Your task to perform on an android device: Is it going to rain today? Image 0: 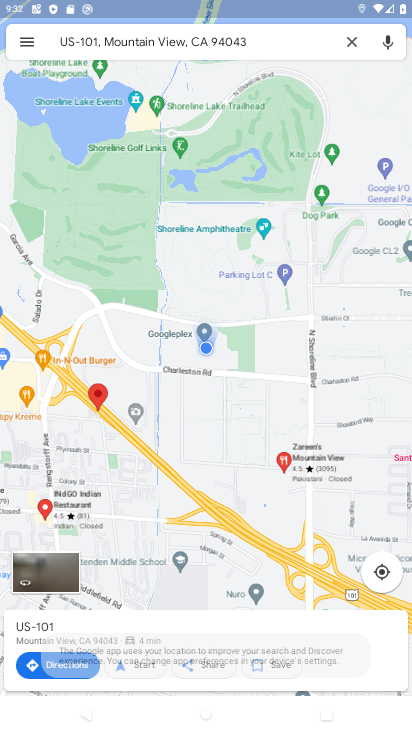
Step 0: press home button
Your task to perform on an android device: Is it going to rain today? Image 1: 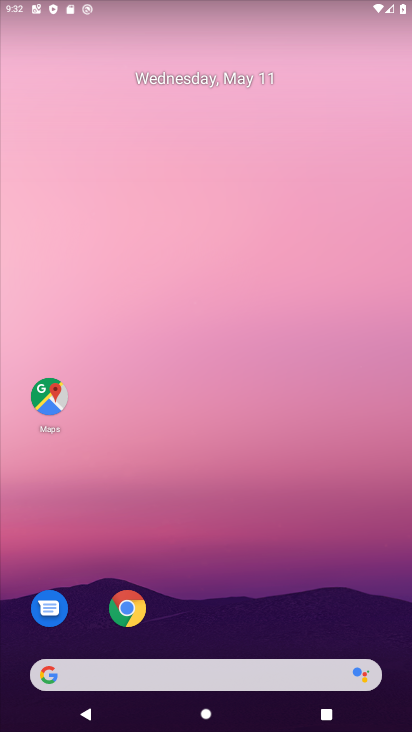
Step 1: click (125, 626)
Your task to perform on an android device: Is it going to rain today? Image 2: 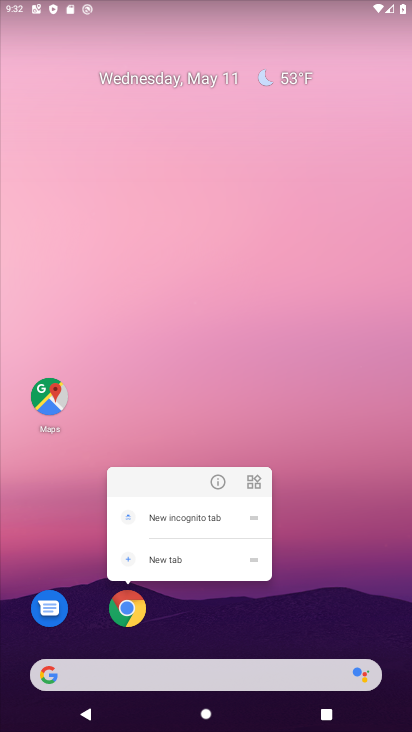
Step 2: click (132, 616)
Your task to perform on an android device: Is it going to rain today? Image 3: 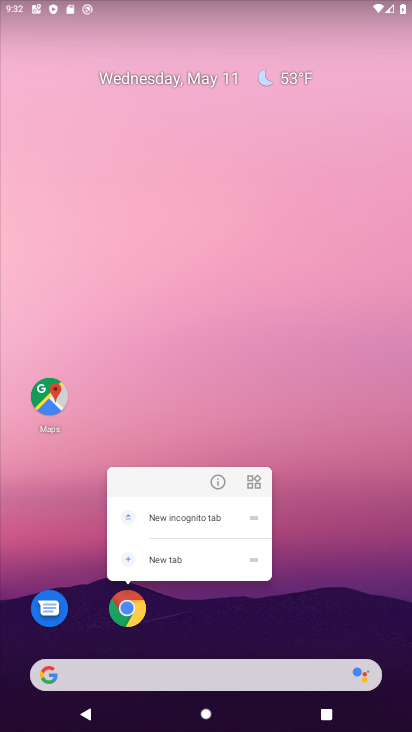
Step 3: click (132, 616)
Your task to perform on an android device: Is it going to rain today? Image 4: 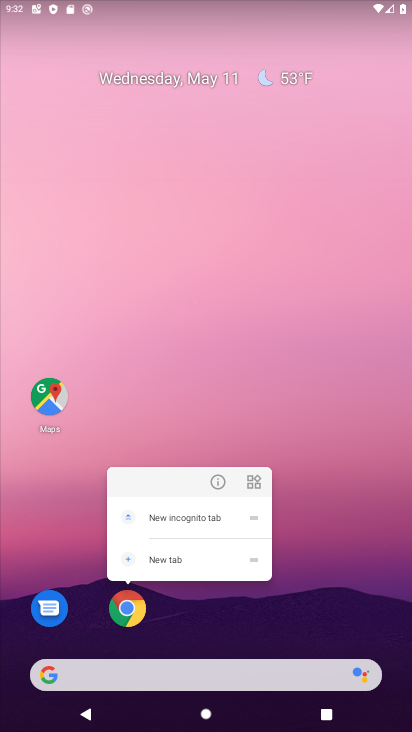
Step 4: click (132, 616)
Your task to perform on an android device: Is it going to rain today? Image 5: 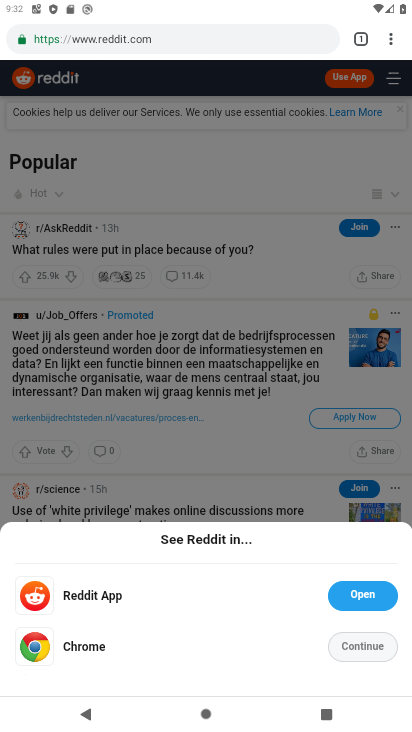
Step 5: click (222, 34)
Your task to perform on an android device: Is it going to rain today? Image 6: 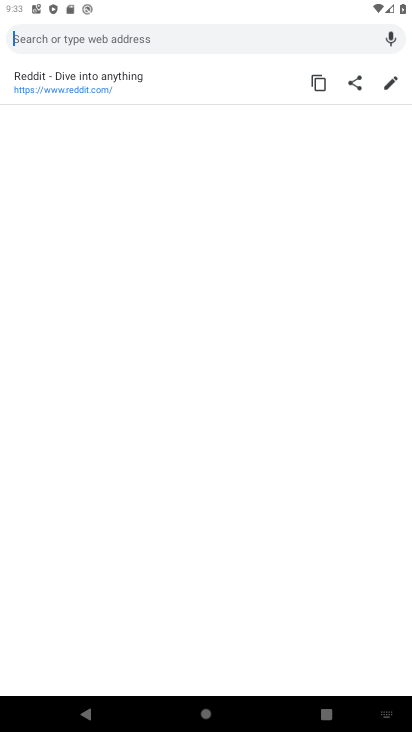
Step 6: type "is it going to rain today"
Your task to perform on an android device: Is it going to rain today? Image 7: 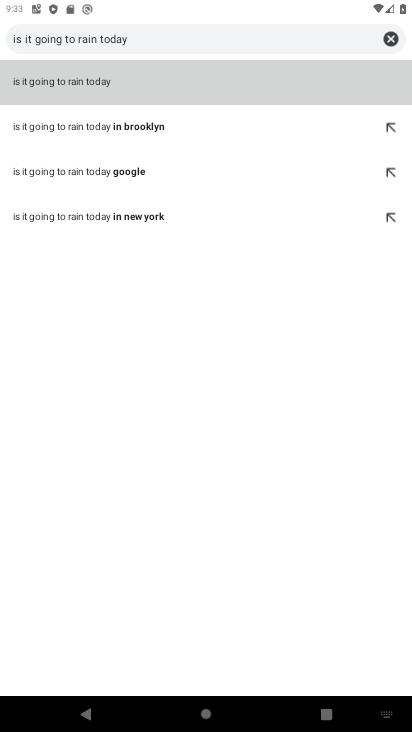
Step 7: click (121, 93)
Your task to perform on an android device: Is it going to rain today? Image 8: 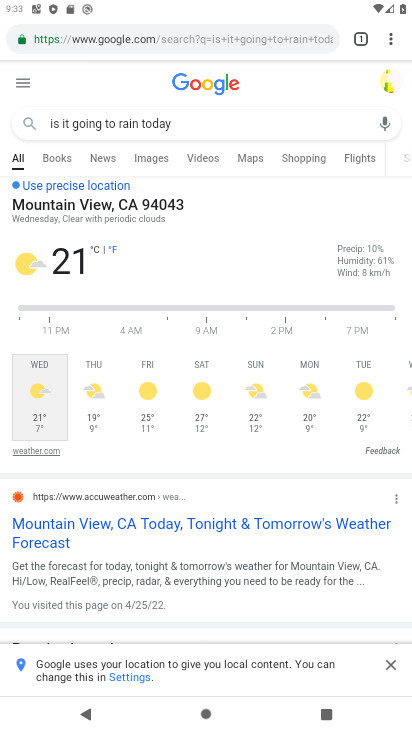
Step 8: task complete